Your task to perform on an android device: open the mobile data screen to see how much data has been used Image 0: 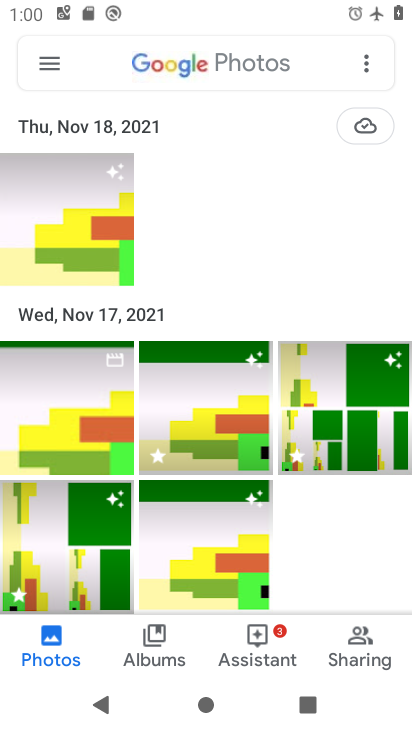
Step 0: press home button
Your task to perform on an android device: open the mobile data screen to see how much data has been used Image 1: 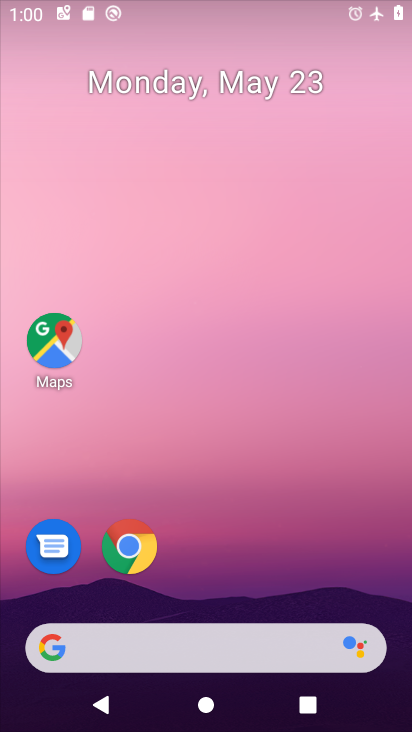
Step 1: drag from (221, 275) to (248, 6)
Your task to perform on an android device: open the mobile data screen to see how much data has been used Image 2: 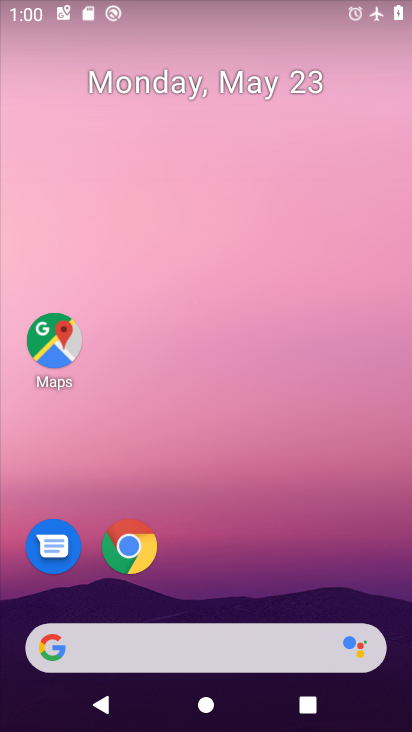
Step 2: drag from (224, 596) to (290, 20)
Your task to perform on an android device: open the mobile data screen to see how much data has been used Image 3: 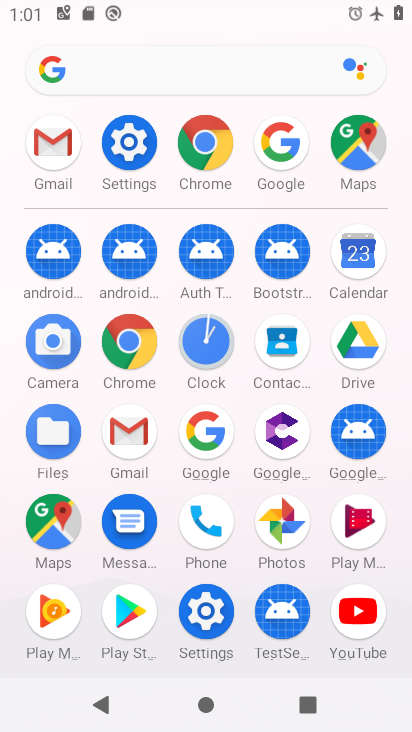
Step 3: click (125, 157)
Your task to perform on an android device: open the mobile data screen to see how much data has been used Image 4: 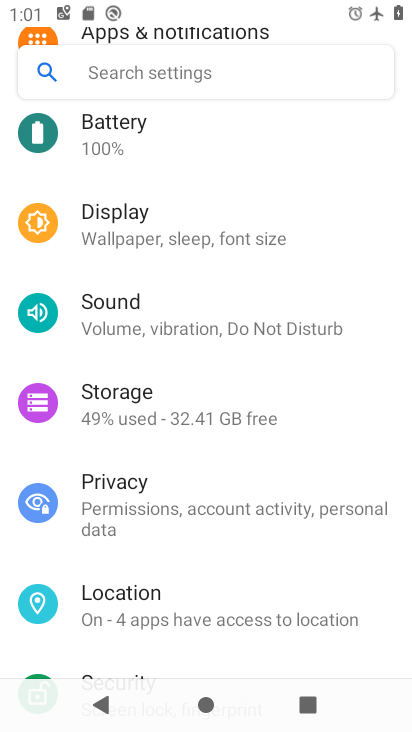
Step 4: drag from (208, 333) to (210, 686)
Your task to perform on an android device: open the mobile data screen to see how much data has been used Image 5: 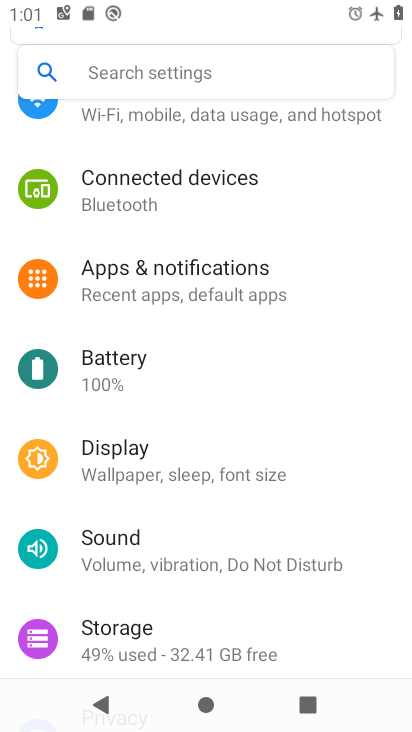
Step 5: drag from (221, 159) to (233, 625)
Your task to perform on an android device: open the mobile data screen to see how much data has been used Image 6: 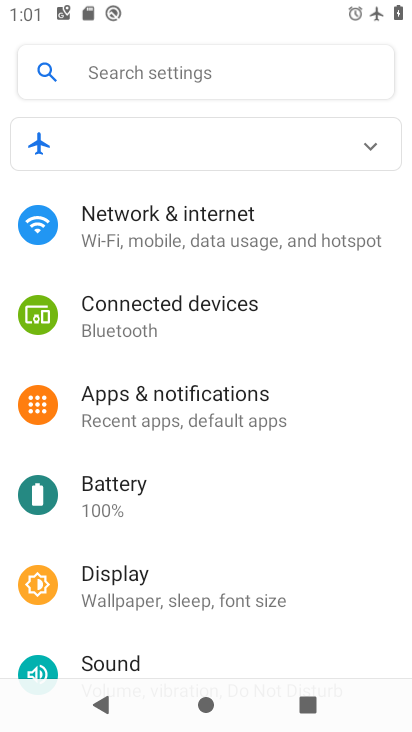
Step 6: click (247, 221)
Your task to perform on an android device: open the mobile data screen to see how much data has been used Image 7: 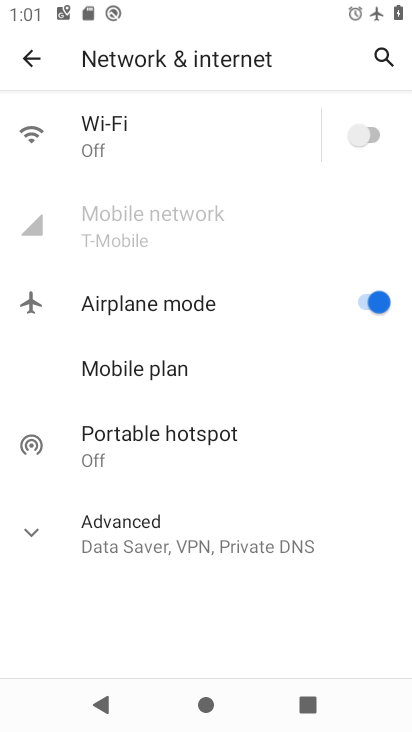
Step 7: click (170, 222)
Your task to perform on an android device: open the mobile data screen to see how much data has been used Image 8: 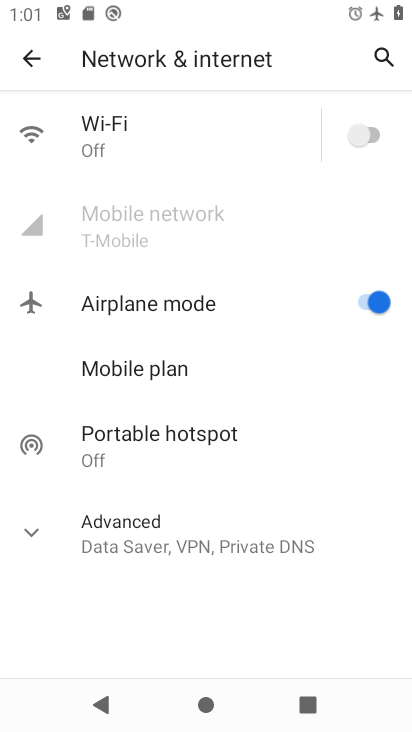
Step 8: task complete